Your task to perform on an android device: read, delete, or share a saved page in the chrome app Image 0: 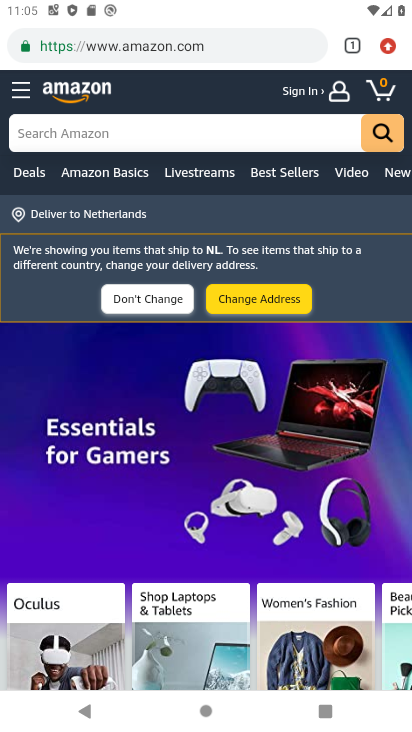
Step 0: click (389, 50)
Your task to perform on an android device: read, delete, or share a saved page in the chrome app Image 1: 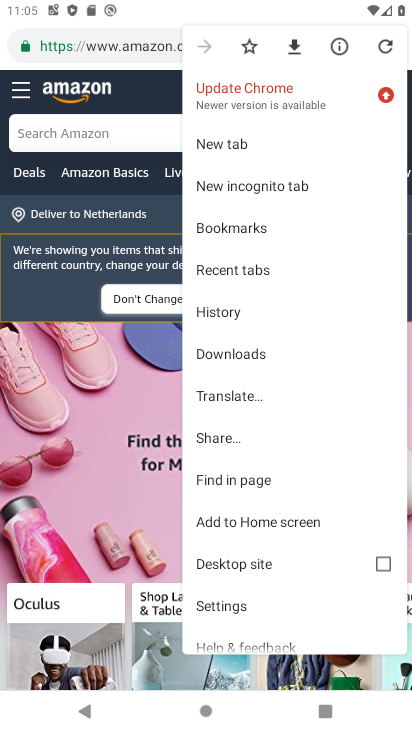
Step 1: click (240, 353)
Your task to perform on an android device: read, delete, or share a saved page in the chrome app Image 2: 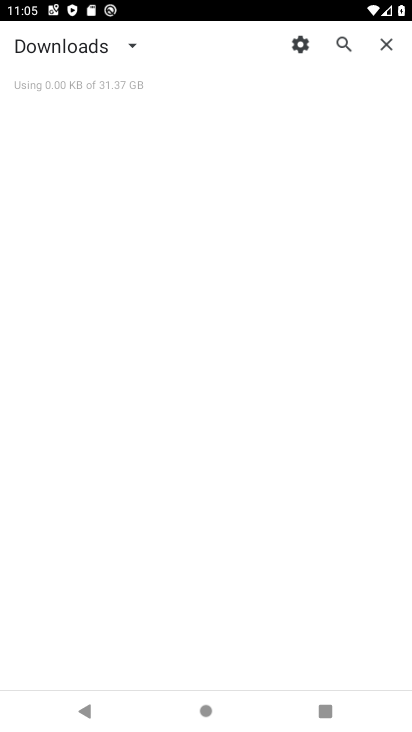
Step 2: click (129, 46)
Your task to perform on an android device: read, delete, or share a saved page in the chrome app Image 3: 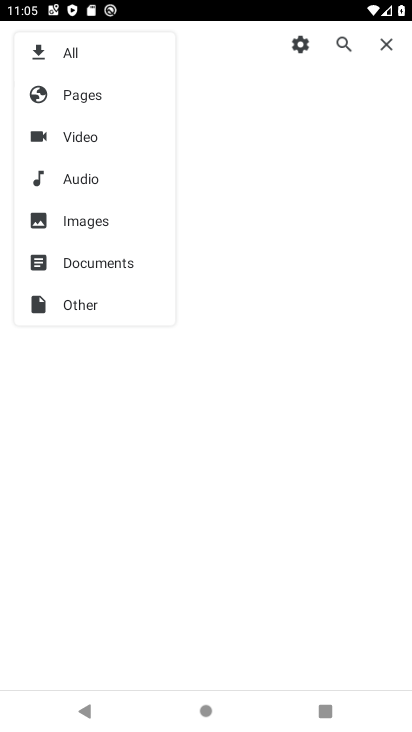
Step 3: click (78, 91)
Your task to perform on an android device: read, delete, or share a saved page in the chrome app Image 4: 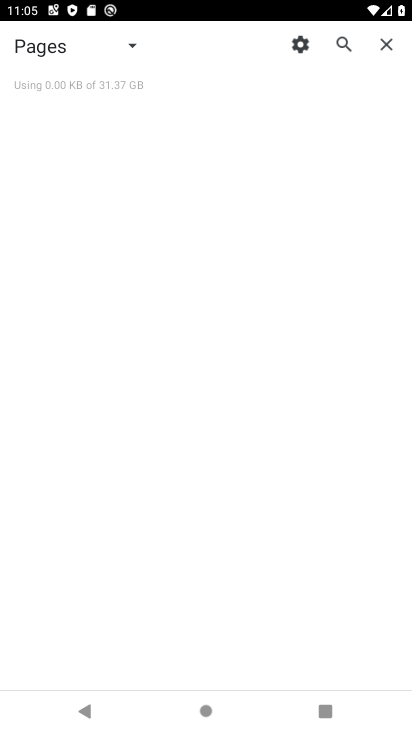
Step 4: task complete